Your task to perform on an android device: empty trash in the gmail app Image 0: 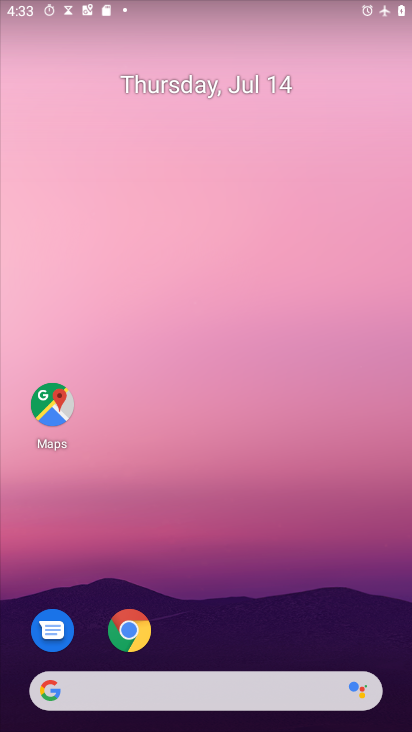
Step 0: drag from (224, 709) to (238, 145)
Your task to perform on an android device: empty trash in the gmail app Image 1: 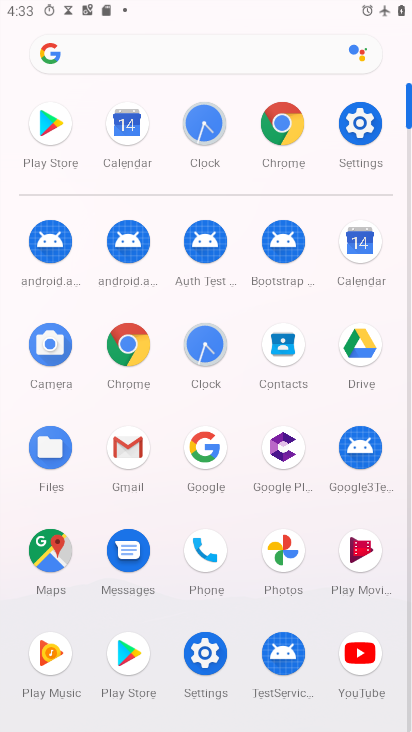
Step 1: click (122, 453)
Your task to perform on an android device: empty trash in the gmail app Image 2: 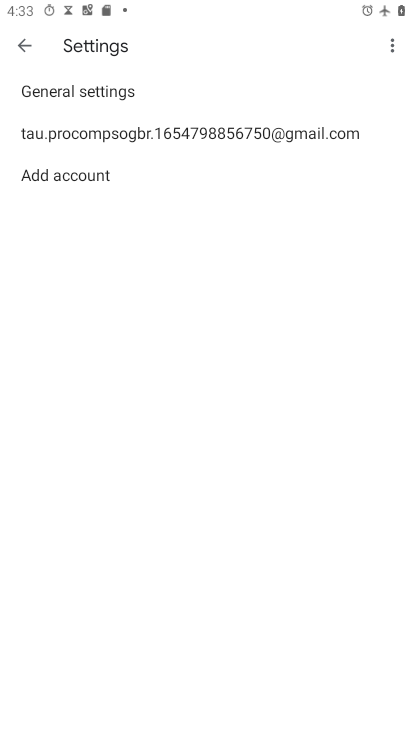
Step 2: click (22, 41)
Your task to perform on an android device: empty trash in the gmail app Image 3: 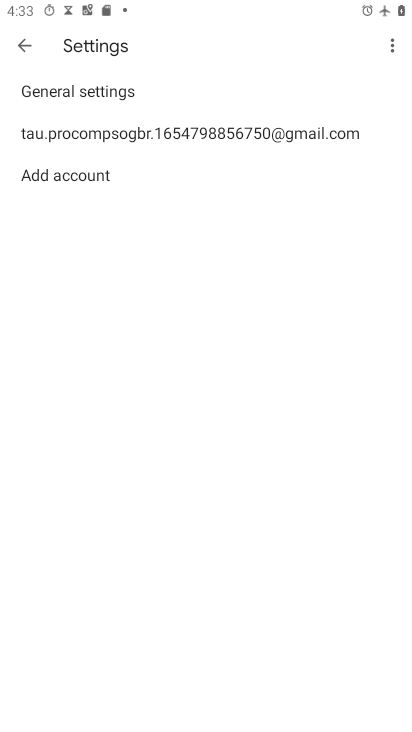
Step 3: click (21, 43)
Your task to perform on an android device: empty trash in the gmail app Image 4: 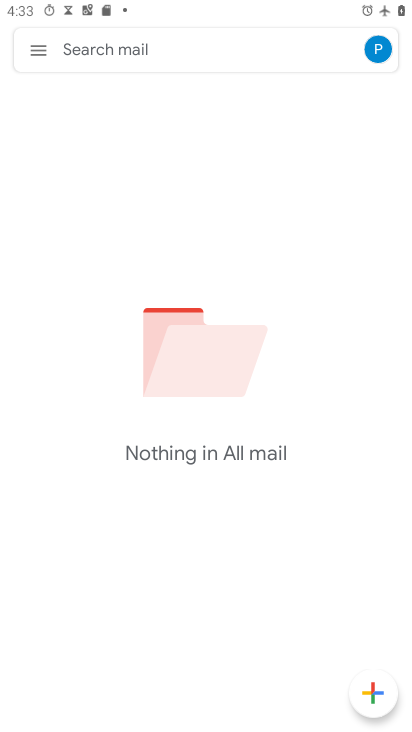
Step 4: click (38, 48)
Your task to perform on an android device: empty trash in the gmail app Image 5: 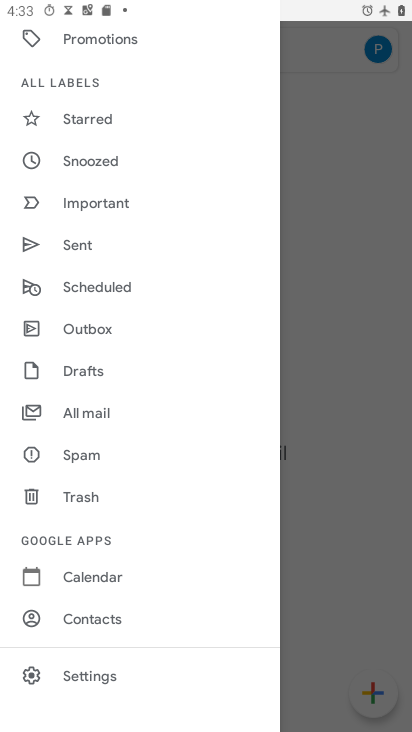
Step 5: click (82, 497)
Your task to perform on an android device: empty trash in the gmail app Image 6: 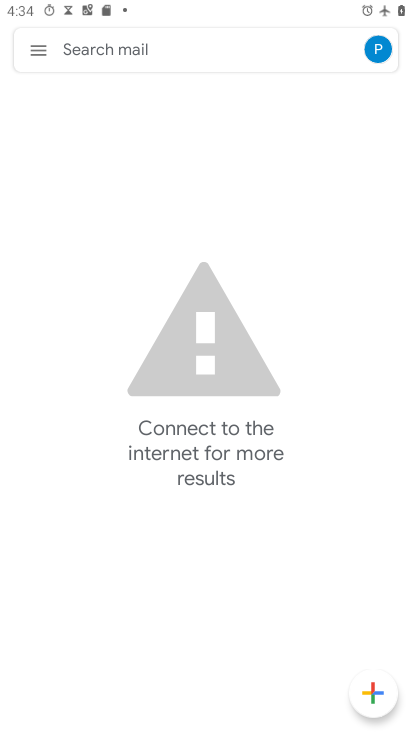
Step 6: task complete